Your task to perform on an android device: uninstall "Mercado Libre" Image 0: 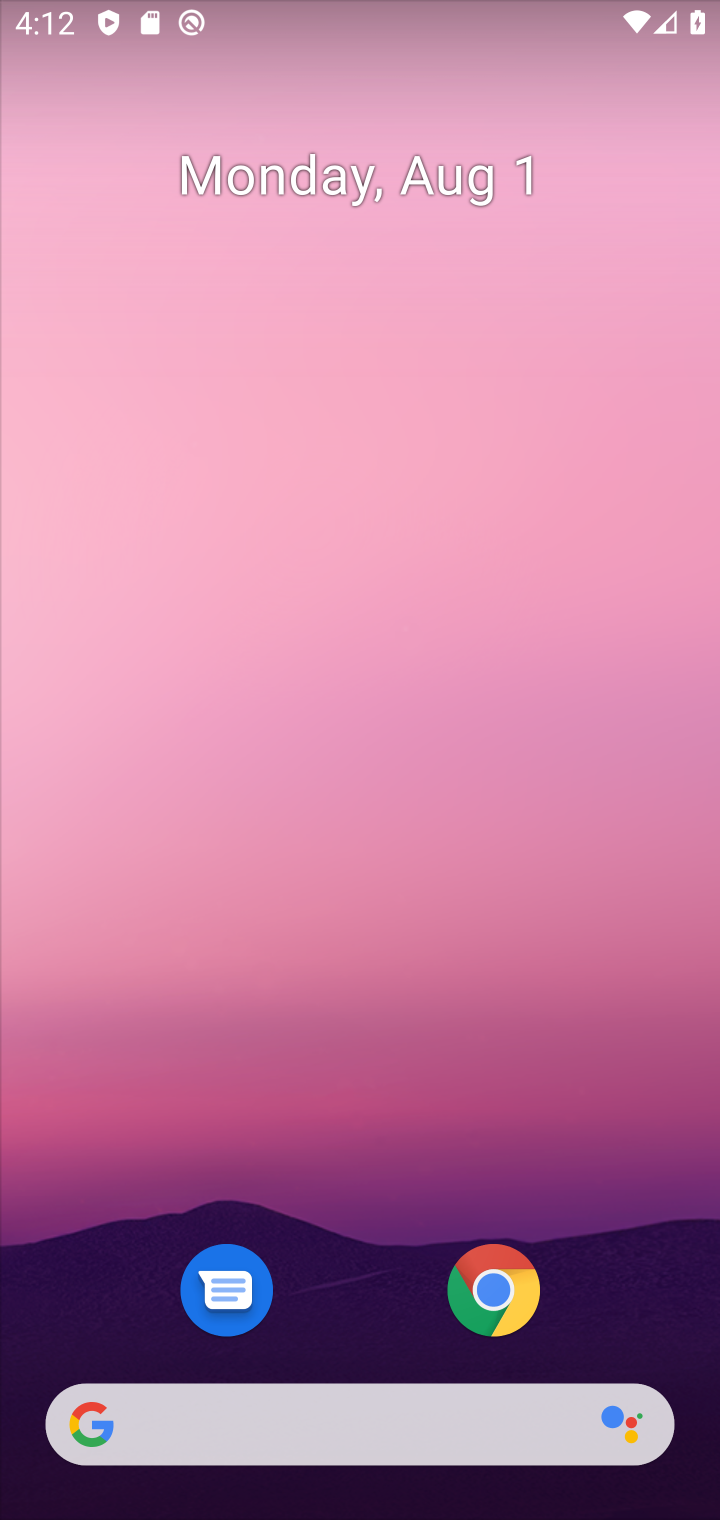
Step 0: drag from (312, 1407) to (414, 4)
Your task to perform on an android device: uninstall "Mercado Libre" Image 1: 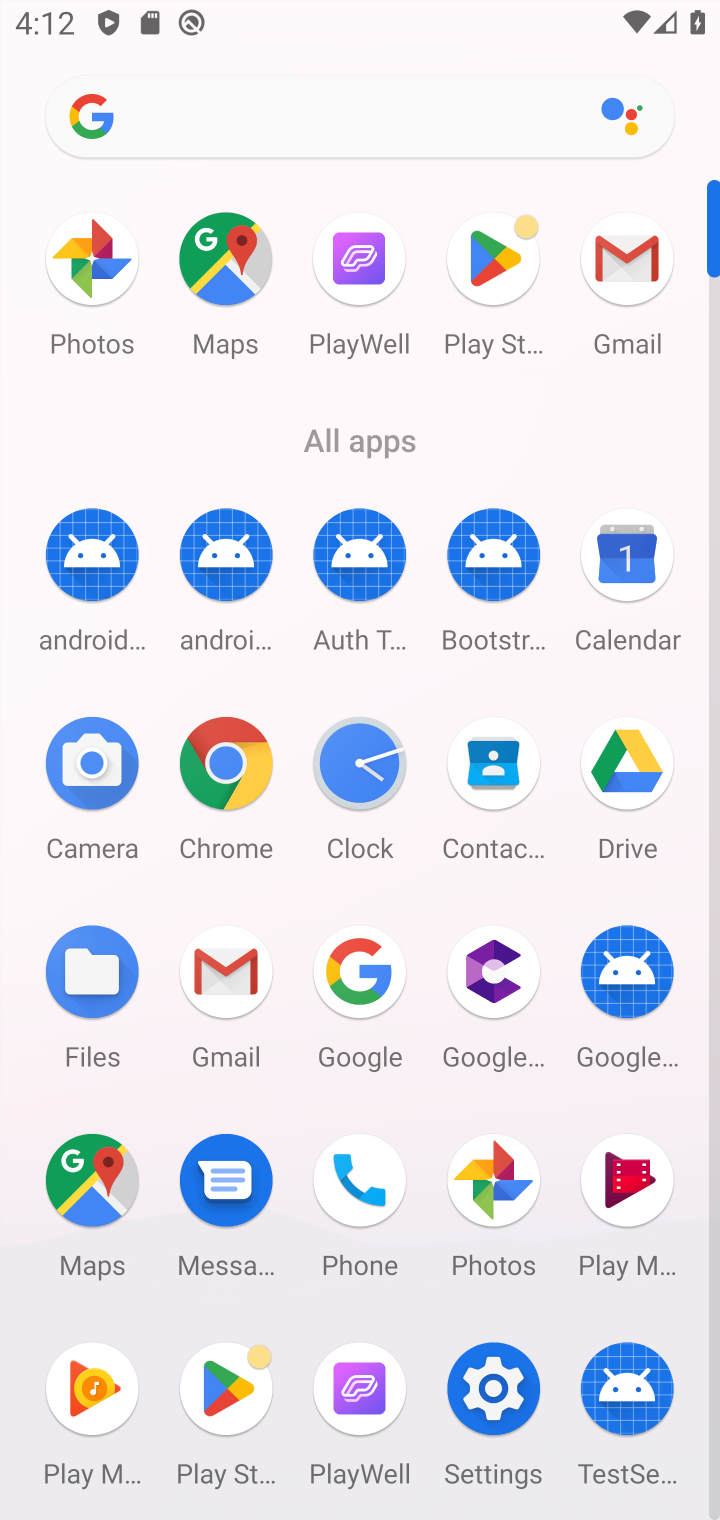
Step 1: click (511, 306)
Your task to perform on an android device: uninstall "Mercado Libre" Image 2: 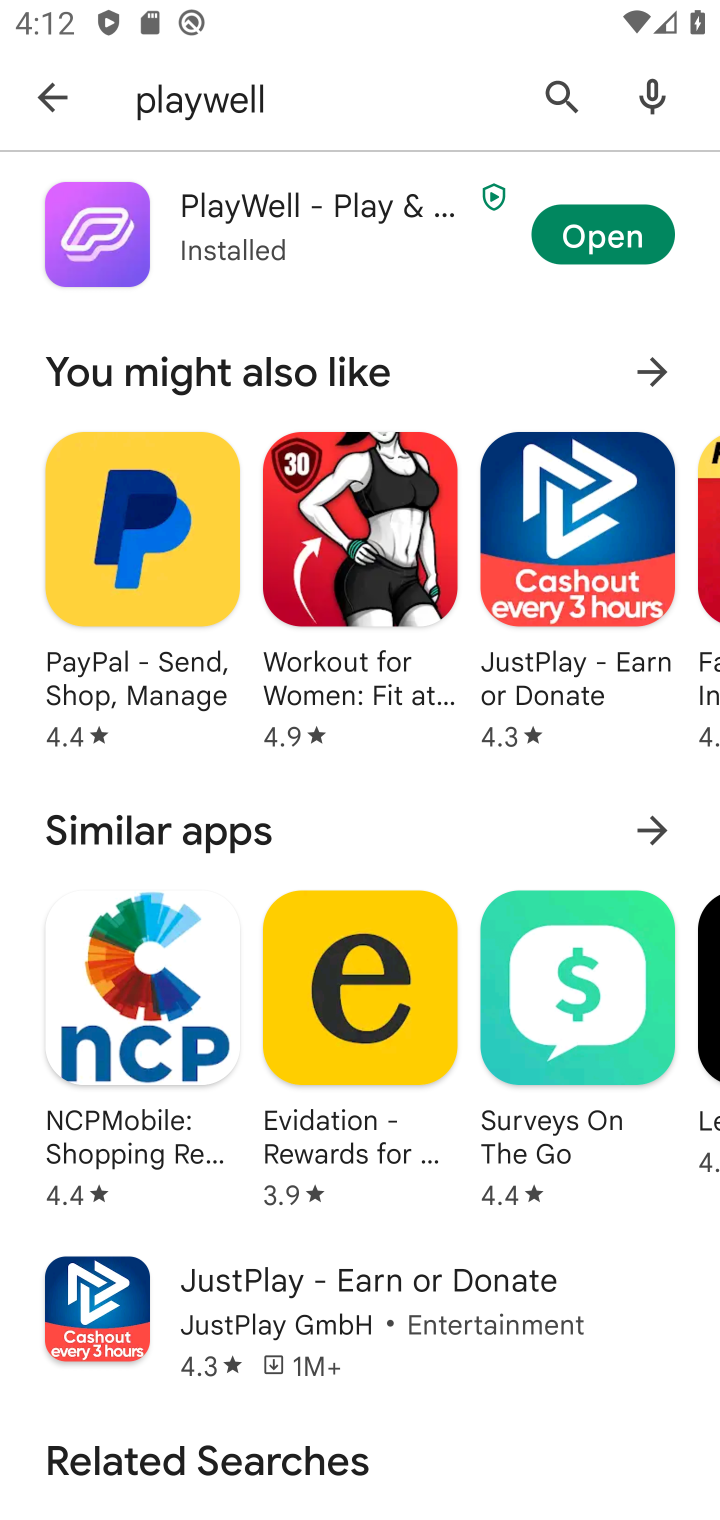
Step 2: click (554, 86)
Your task to perform on an android device: uninstall "Mercado Libre" Image 3: 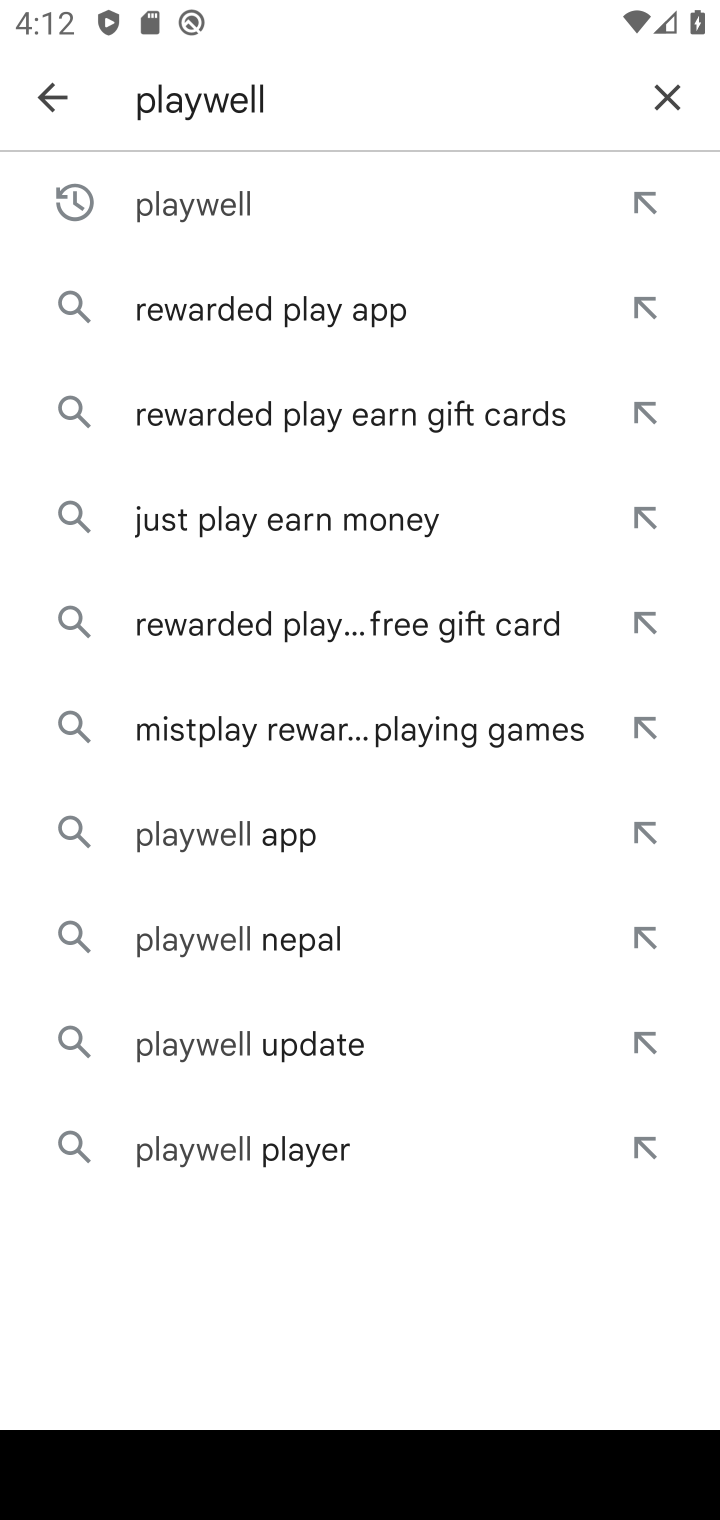
Step 3: click (662, 90)
Your task to perform on an android device: uninstall "Mercado Libre" Image 4: 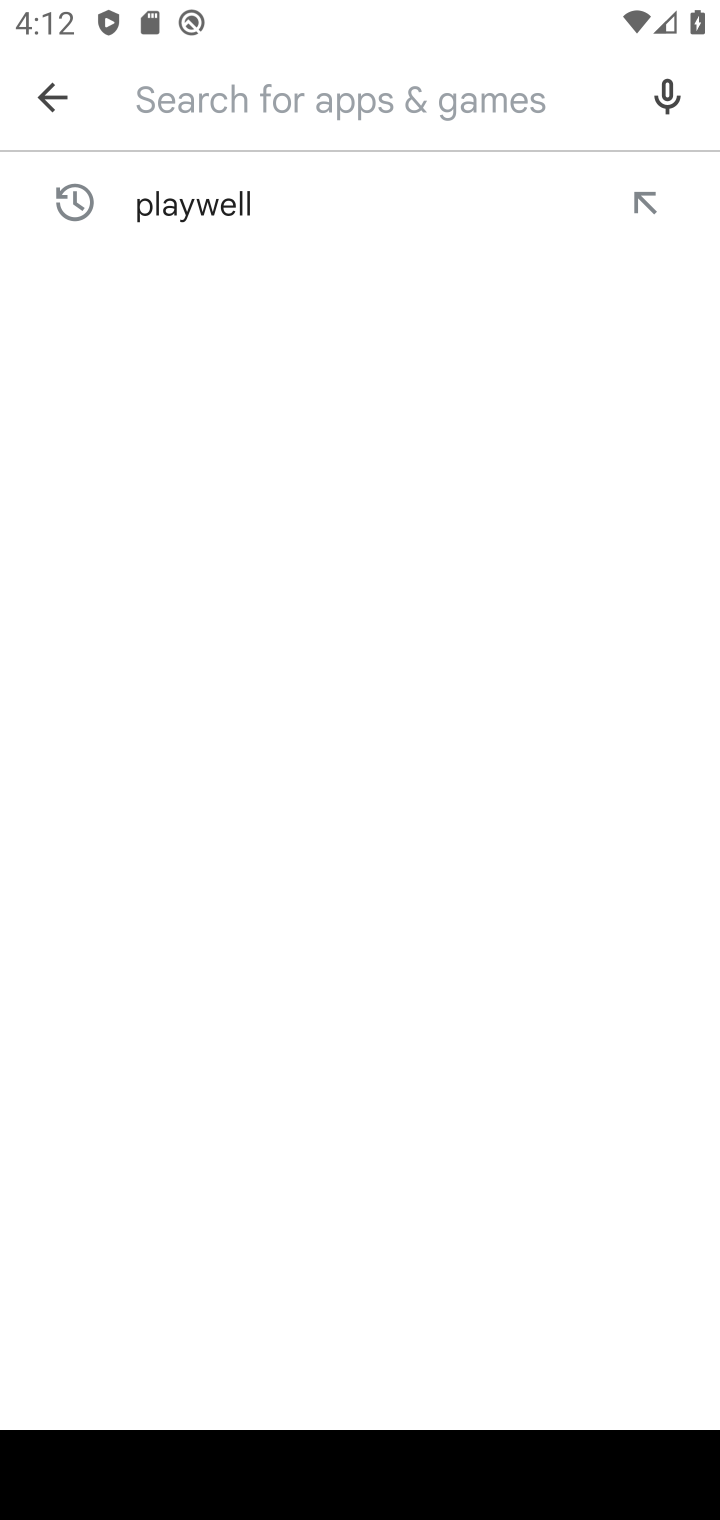
Step 4: type "mercado libre"
Your task to perform on an android device: uninstall "Mercado Libre" Image 5: 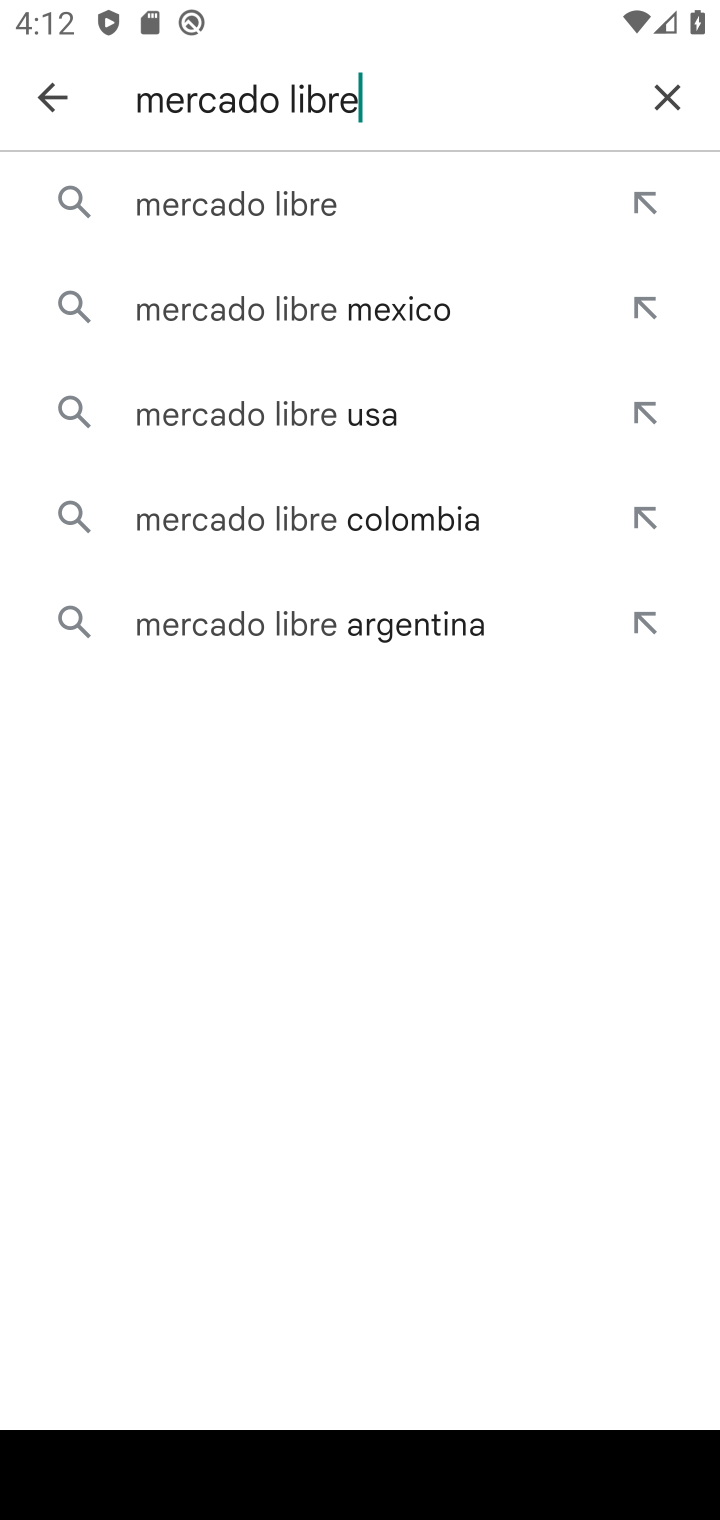
Step 5: click (383, 205)
Your task to perform on an android device: uninstall "Mercado Libre" Image 6: 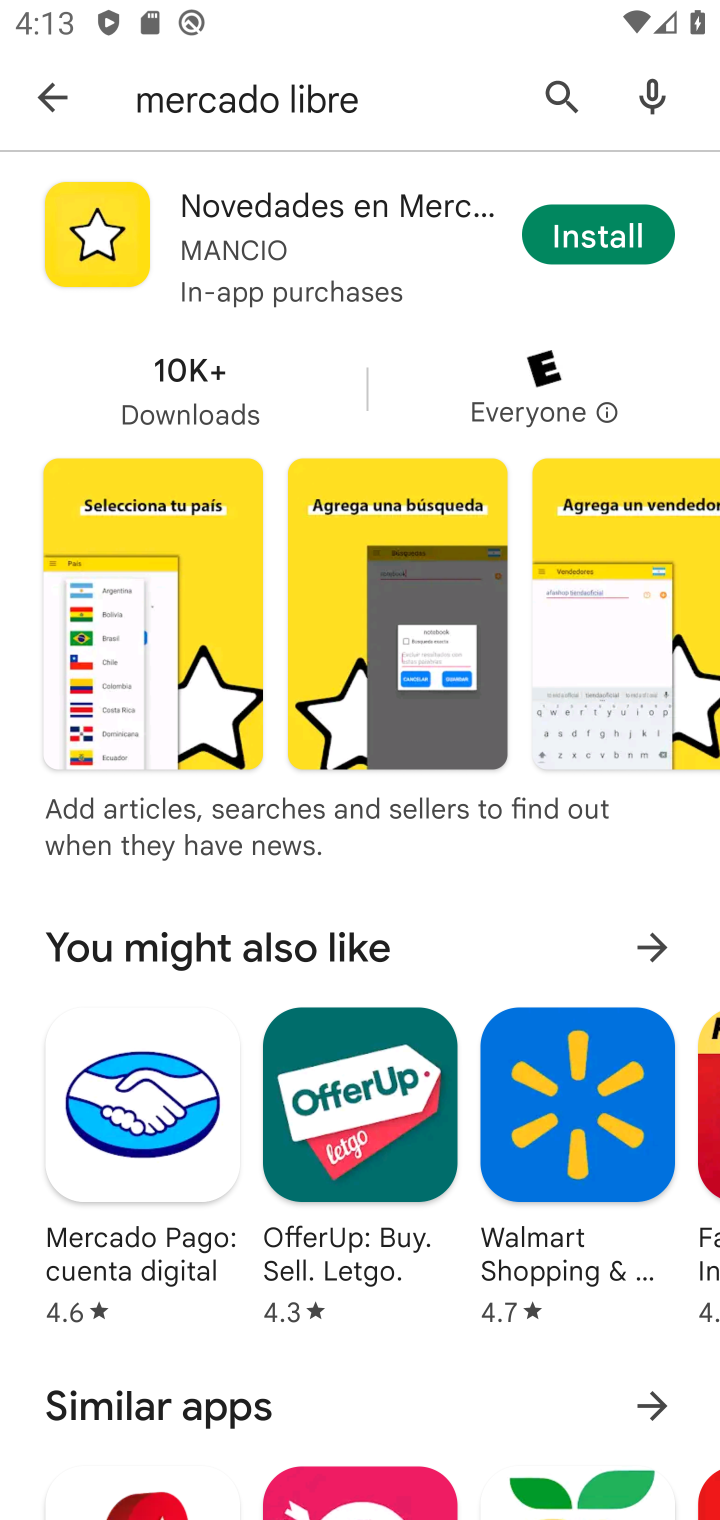
Step 6: task complete